Your task to perform on an android device: Is it going to rain today? Image 0: 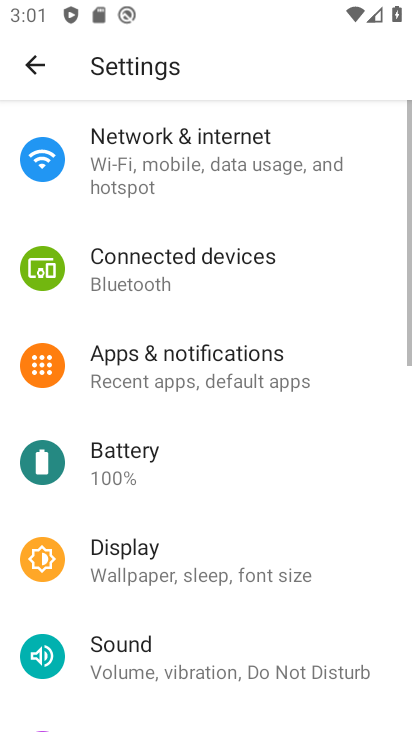
Step 0: press home button
Your task to perform on an android device: Is it going to rain today? Image 1: 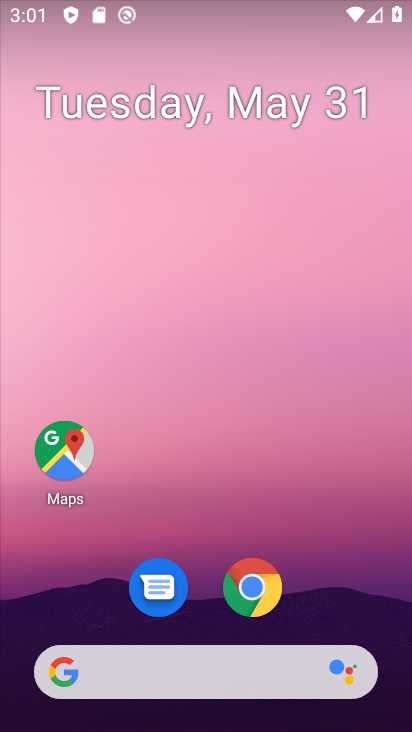
Step 1: click (160, 671)
Your task to perform on an android device: Is it going to rain today? Image 2: 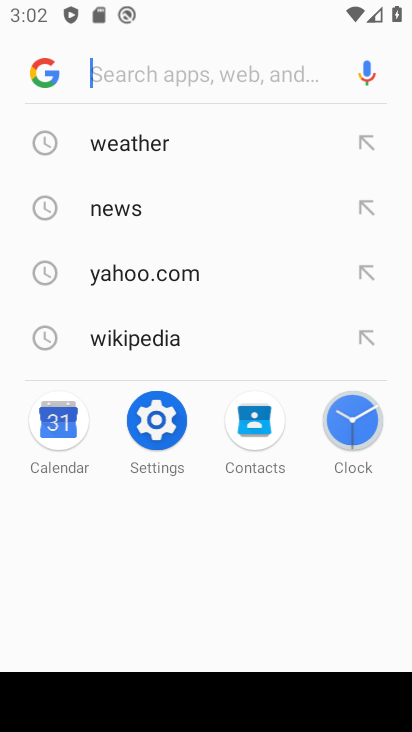
Step 2: type "is it going to rain today"
Your task to perform on an android device: Is it going to rain today? Image 3: 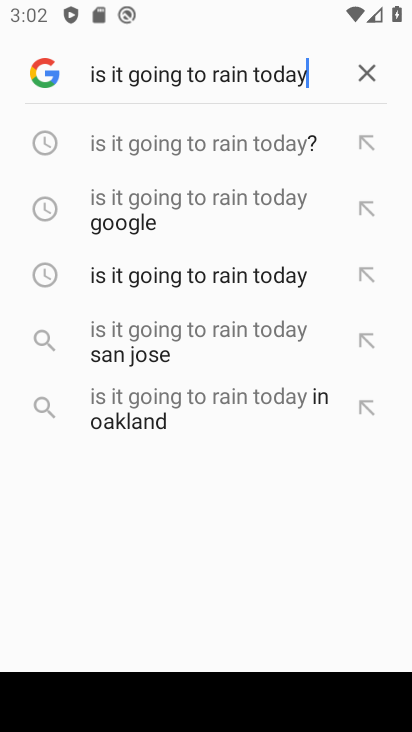
Step 3: click (171, 149)
Your task to perform on an android device: Is it going to rain today? Image 4: 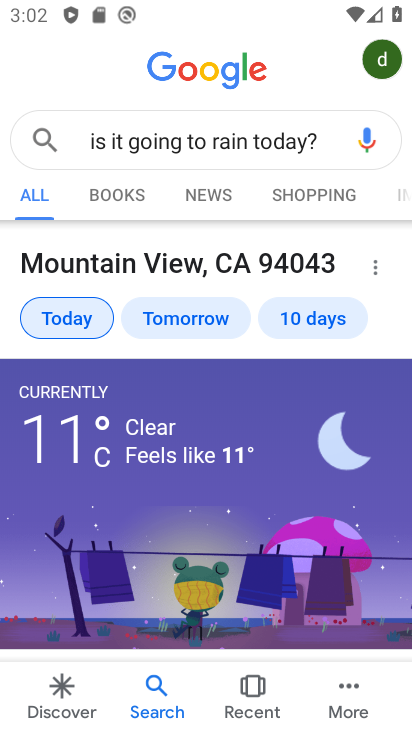
Step 4: task complete